Your task to perform on an android device: set an alarm Image 0: 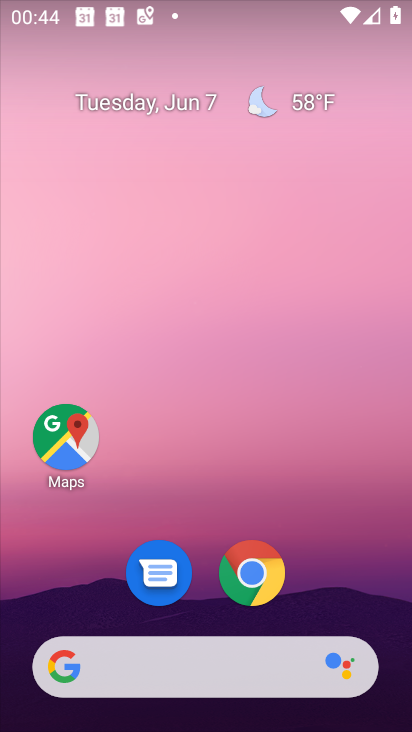
Step 0: drag from (349, 593) to (313, 80)
Your task to perform on an android device: set an alarm Image 1: 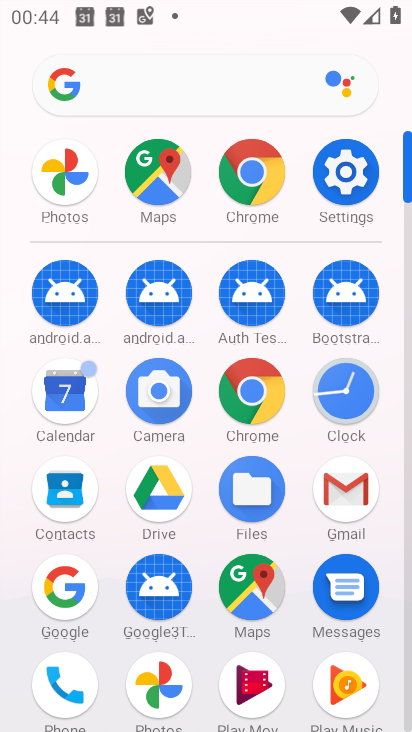
Step 1: click (327, 400)
Your task to perform on an android device: set an alarm Image 2: 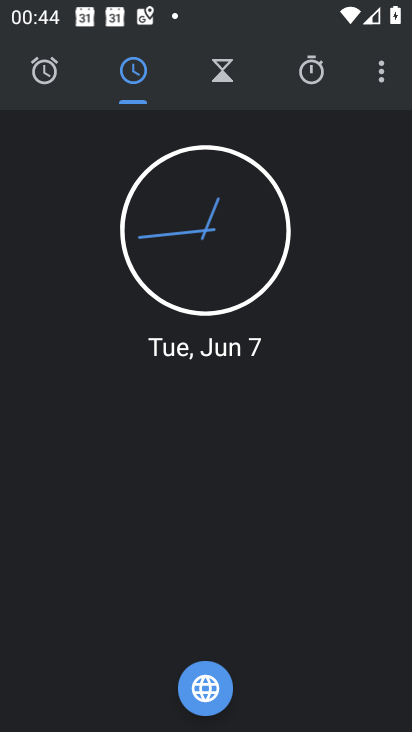
Step 2: click (52, 77)
Your task to perform on an android device: set an alarm Image 3: 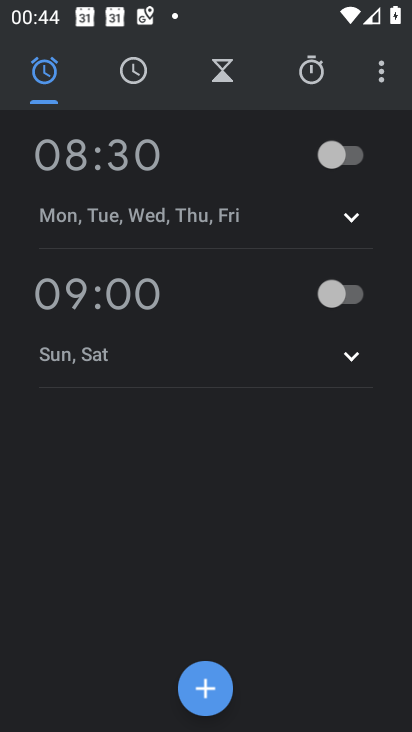
Step 3: click (207, 690)
Your task to perform on an android device: set an alarm Image 4: 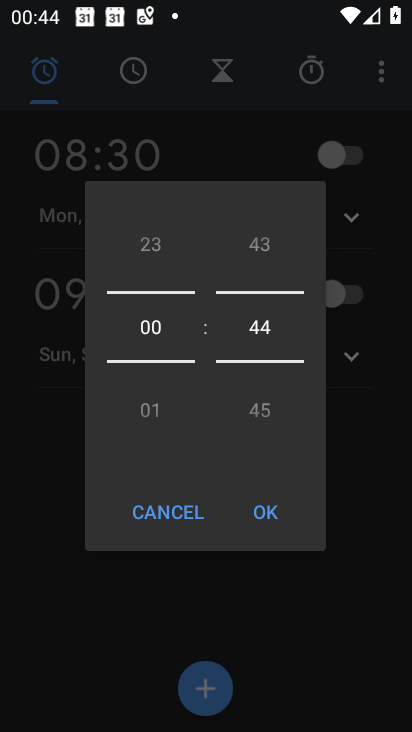
Step 4: drag from (258, 450) to (263, 168)
Your task to perform on an android device: set an alarm Image 5: 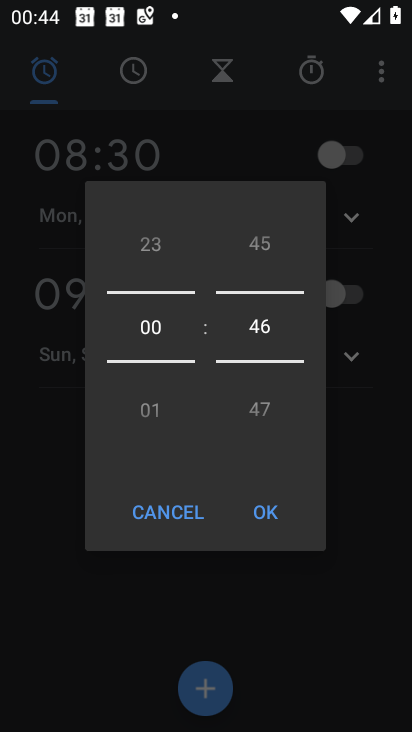
Step 5: drag from (244, 427) to (244, 198)
Your task to perform on an android device: set an alarm Image 6: 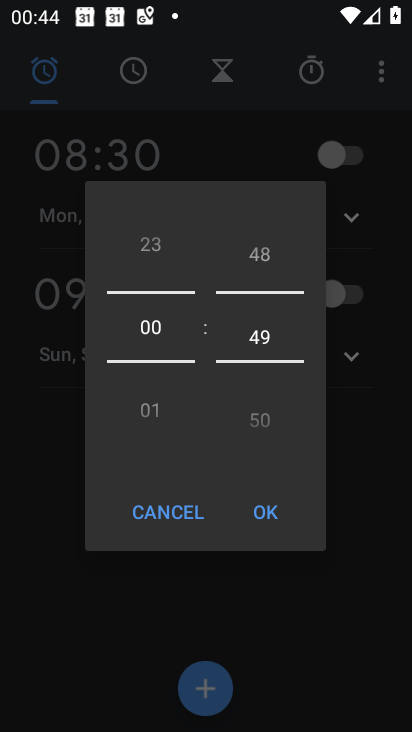
Step 6: drag from (262, 384) to (256, 284)
Your task to perform on an android device: set an alarm Image 7: 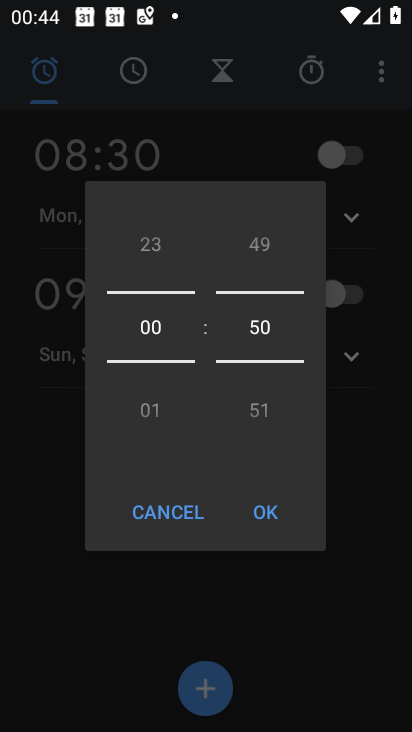
Step 7: drag from (170, 374) to (170, 263)
Your task to perform on an android device: set an alarm Image 8: 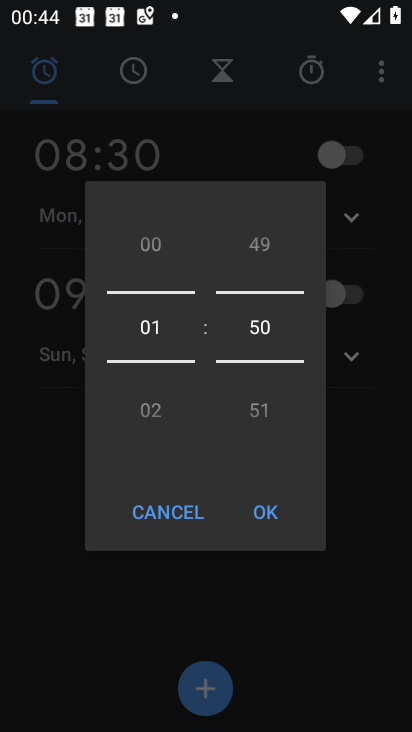
Step 8: drag from (163, 399) to (154, 247)
Your task to perform on an android device: set an alarm Image 9: 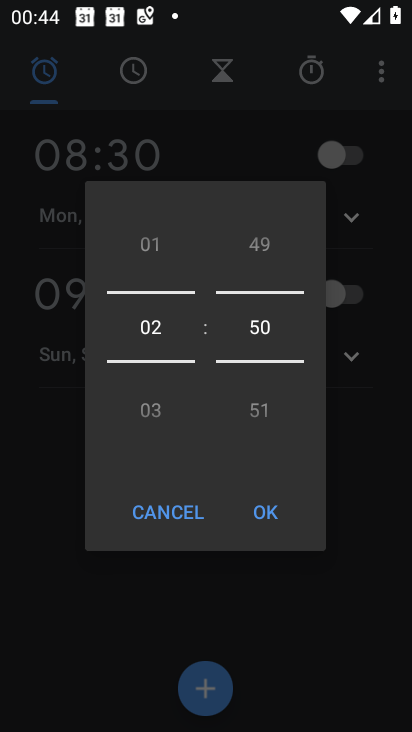
Step 9: click (275, 521)
Your task to perform on an android device: set an alarm Image 10: 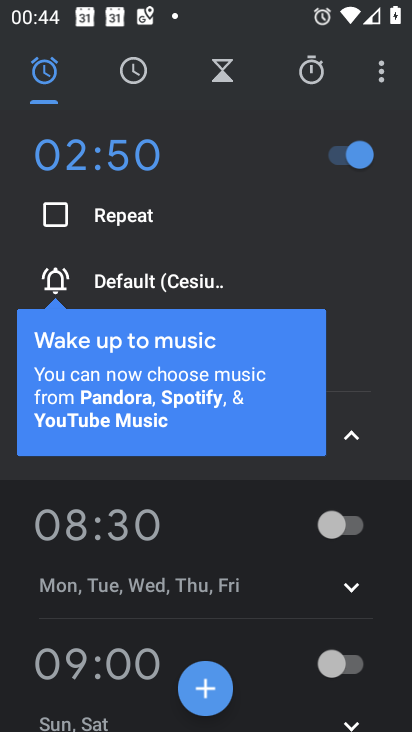
Step 10: task complete